Your task to perform on an android device: Open privacy settings Image 0: 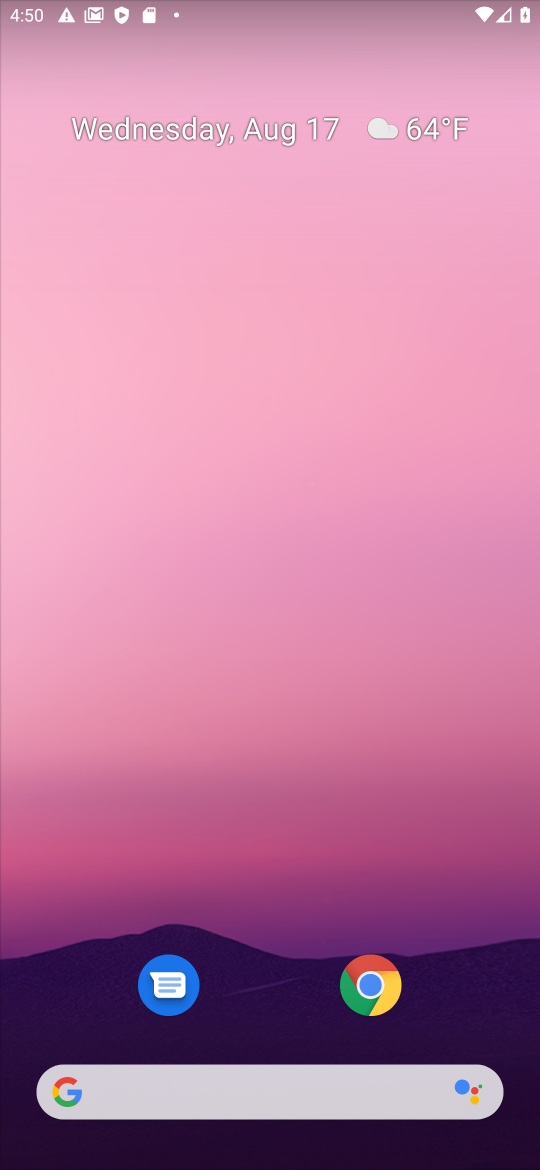
Step 0: drag from (240, 1112) to (240, 231)
Your task to perform on an android device: Open privacy settings Image 1: 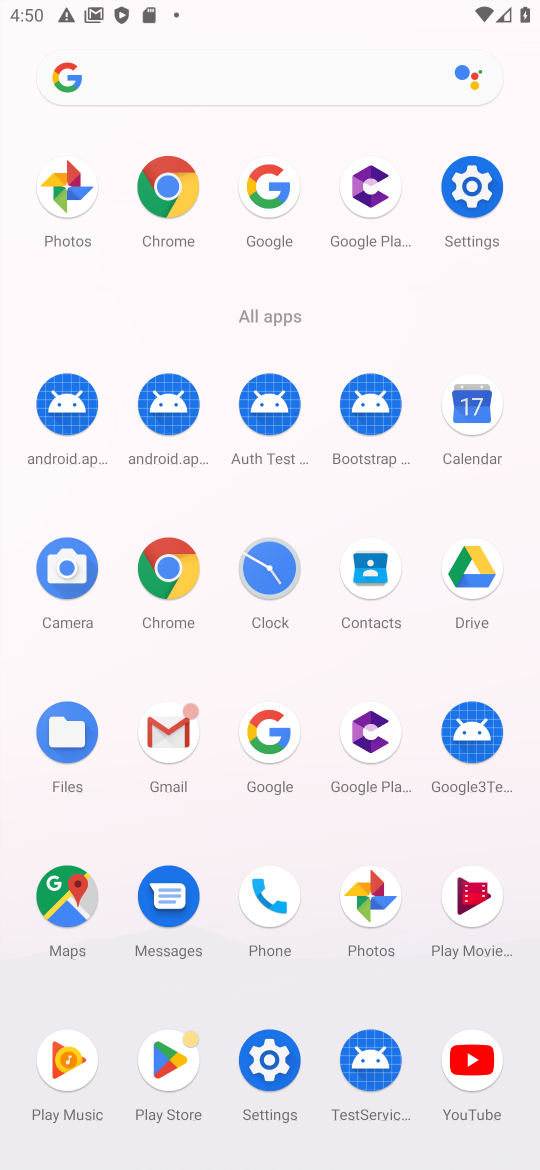
Step 1: click (476, 187)
Your task to perform on an android device: Open privacy settings Image 2: 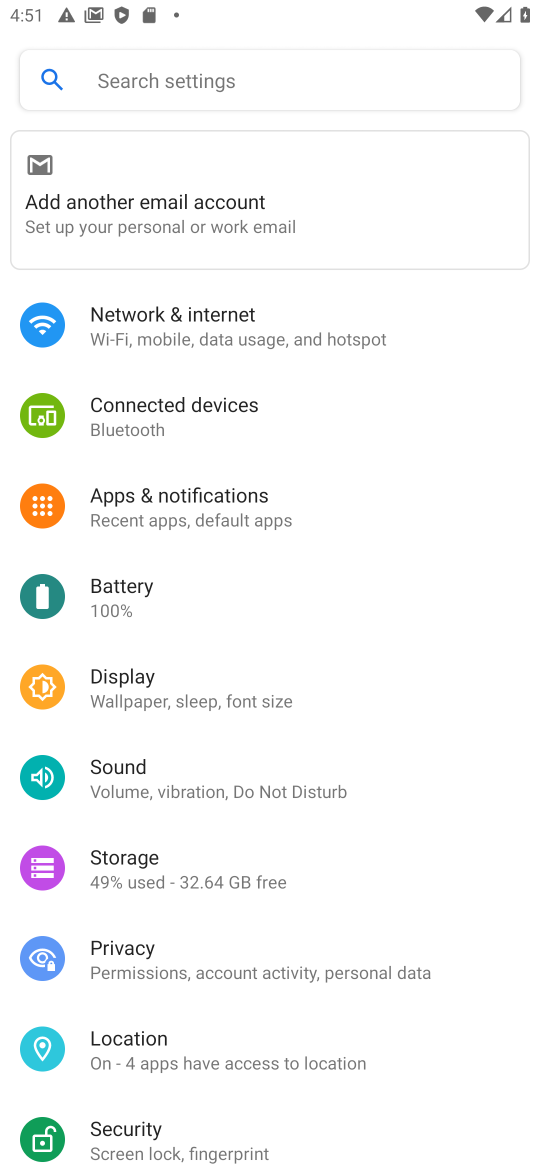
Step 2: click (175, 963)
Your task to perform on an android device: Open privacy settings Image 3: 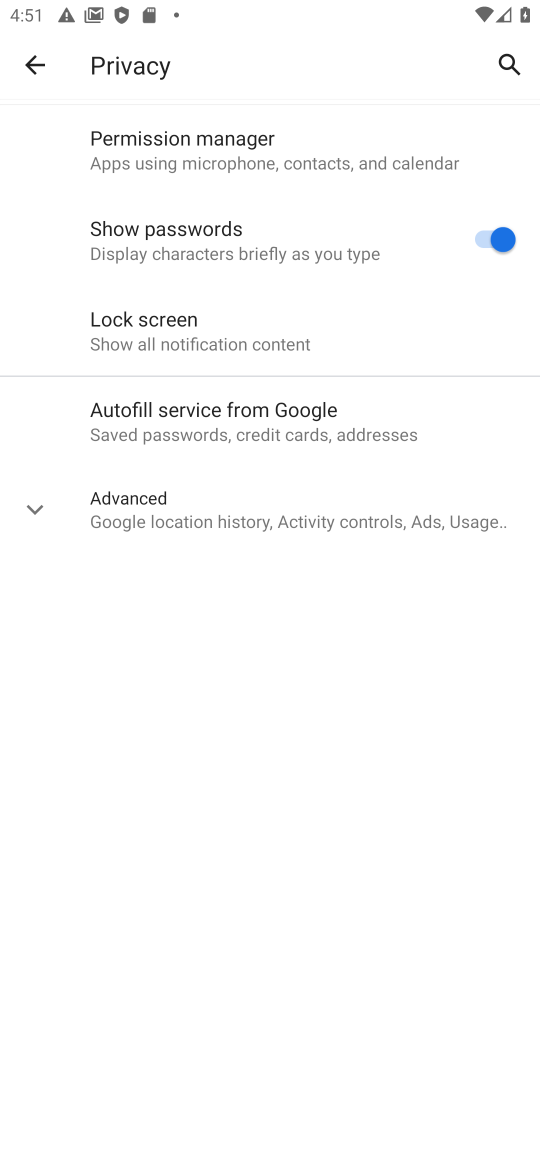
Step 3: task complete